Your task to perform on an android device: toggle show notifications on the lock screen Image 0: 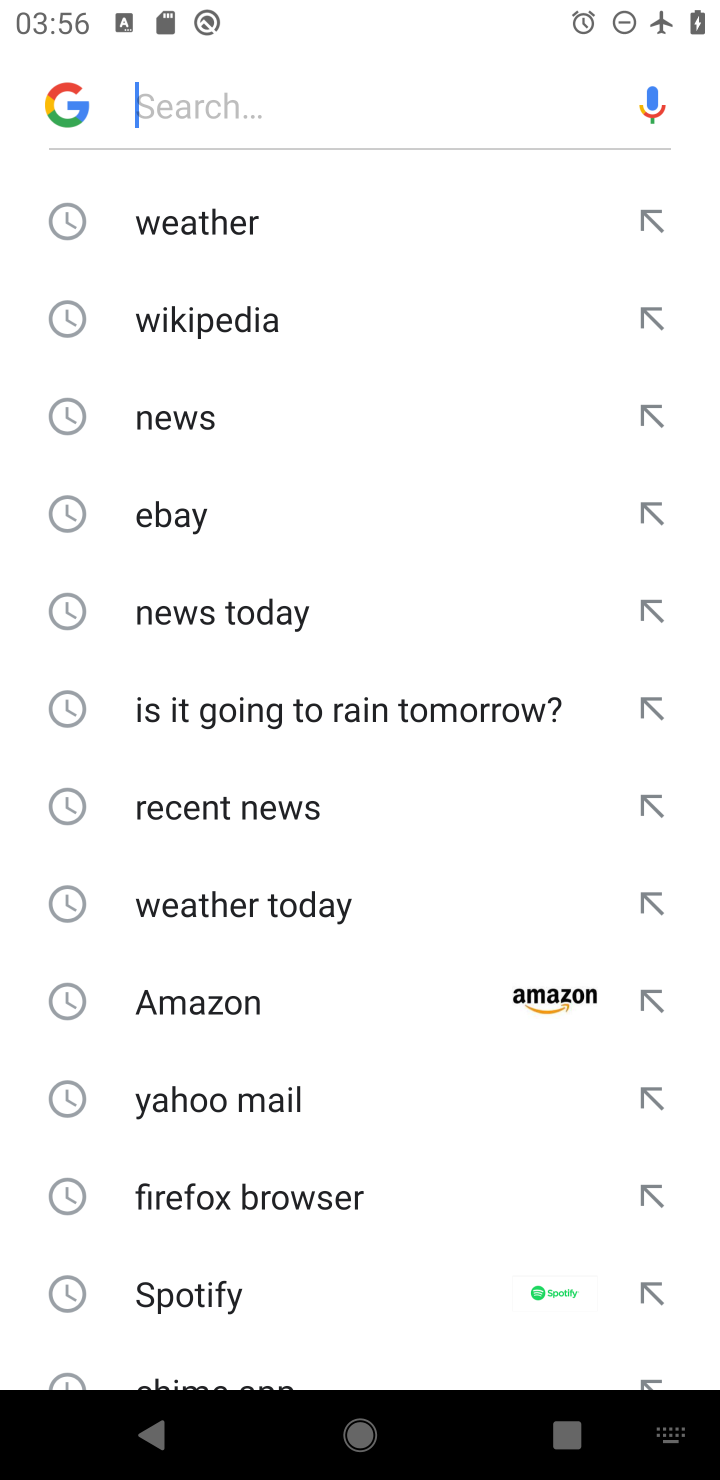
Step 0: press home button
Your task to perform on an android device: toggle show notifications on the lock screen Image 1: 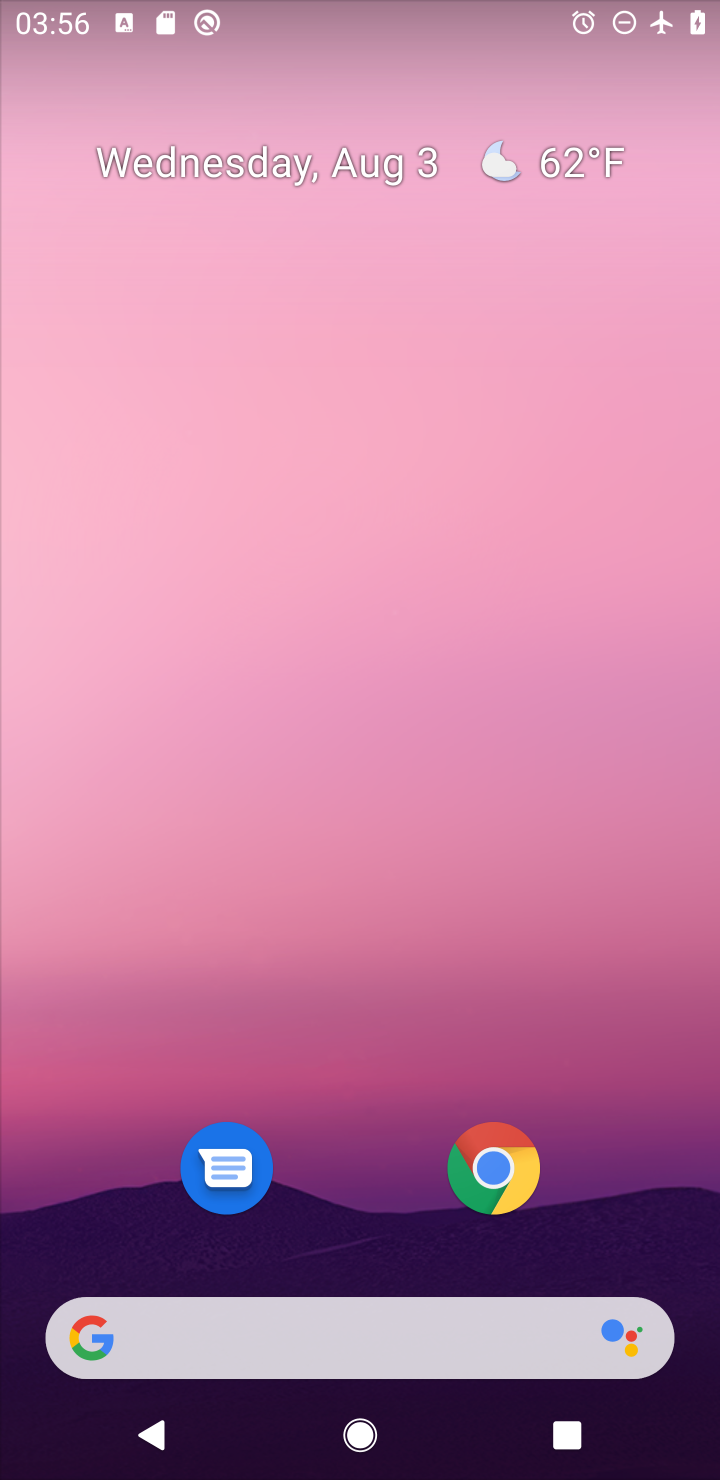
Step 1: drag from (685, 1149) to (584, 172)
Your task to perform on an android device: toggle show notifications on the lock screen Image 2: 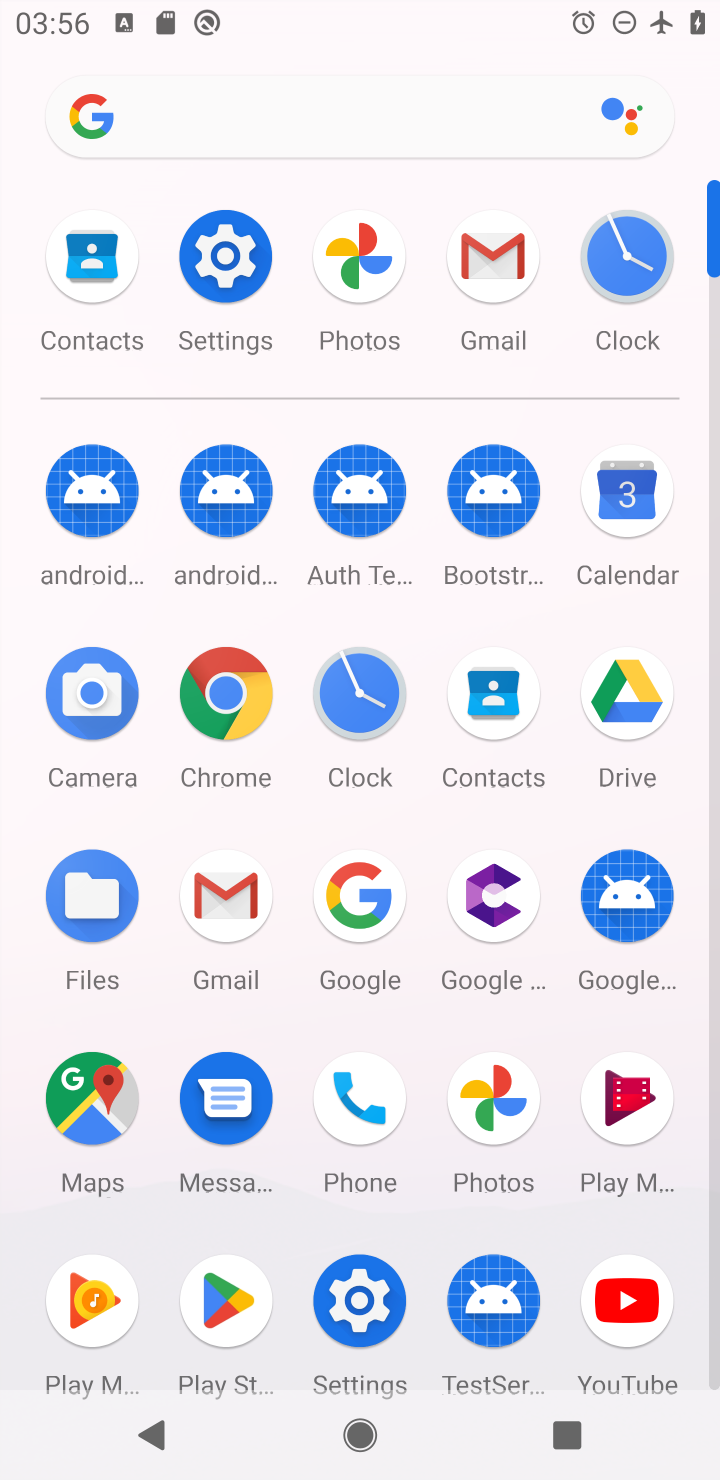
Step 2: click (359, 1302)
Your task to perform on an android device: toggle show notifications on the lock screen Image 3: 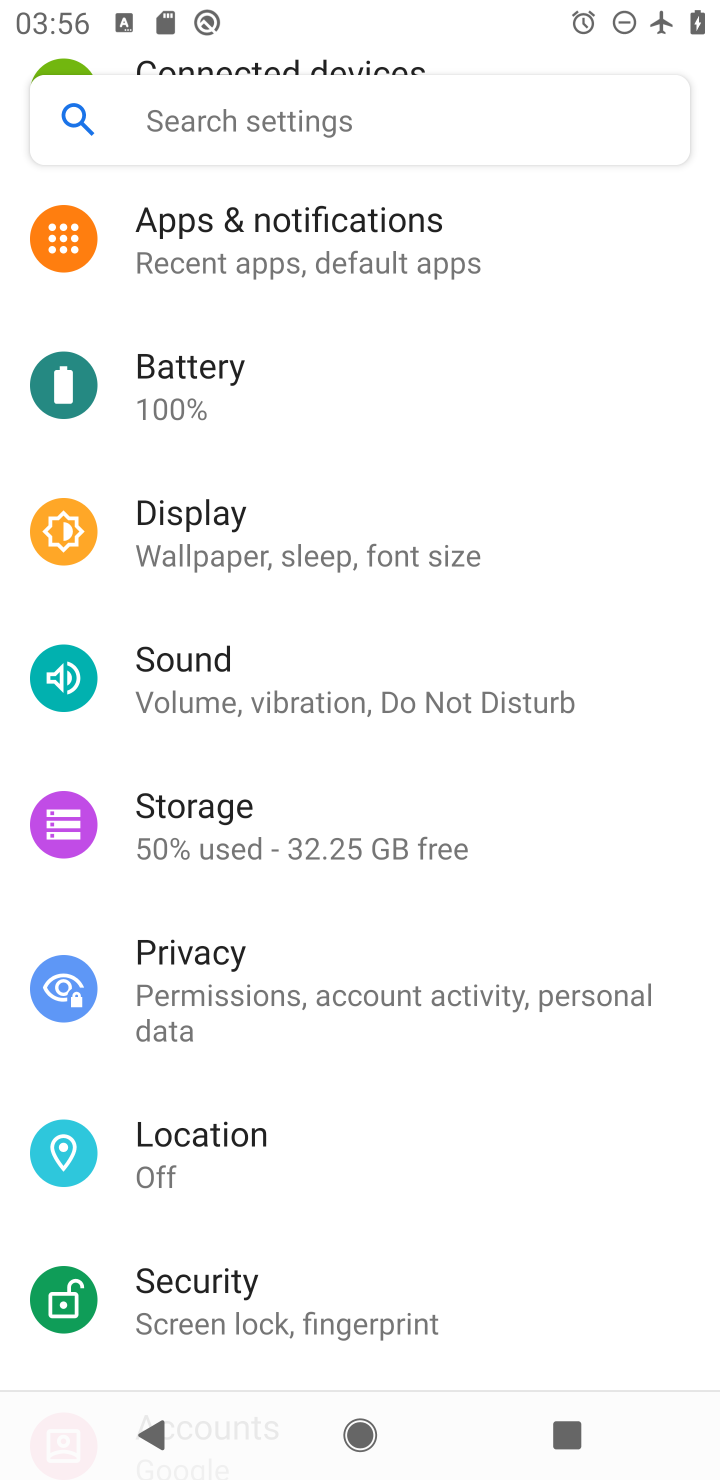
Step 3: drag from (543, 494) to (543, 920)
Your task to perform on an android device: toggle show notifications on the lock screen Image 4: 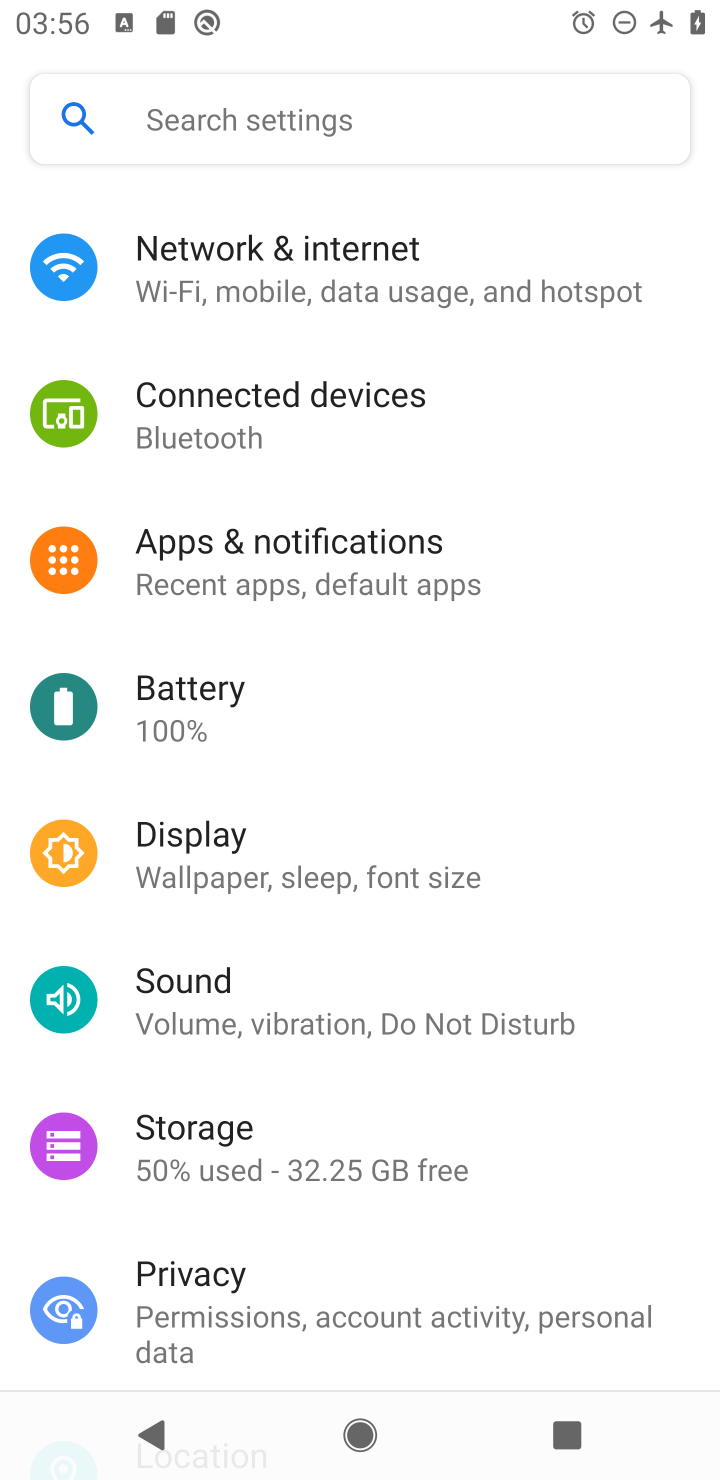
Step 4: click (238, 560)
Your task to perform on an android device: toggle show notifications on the lock screen Image 5: 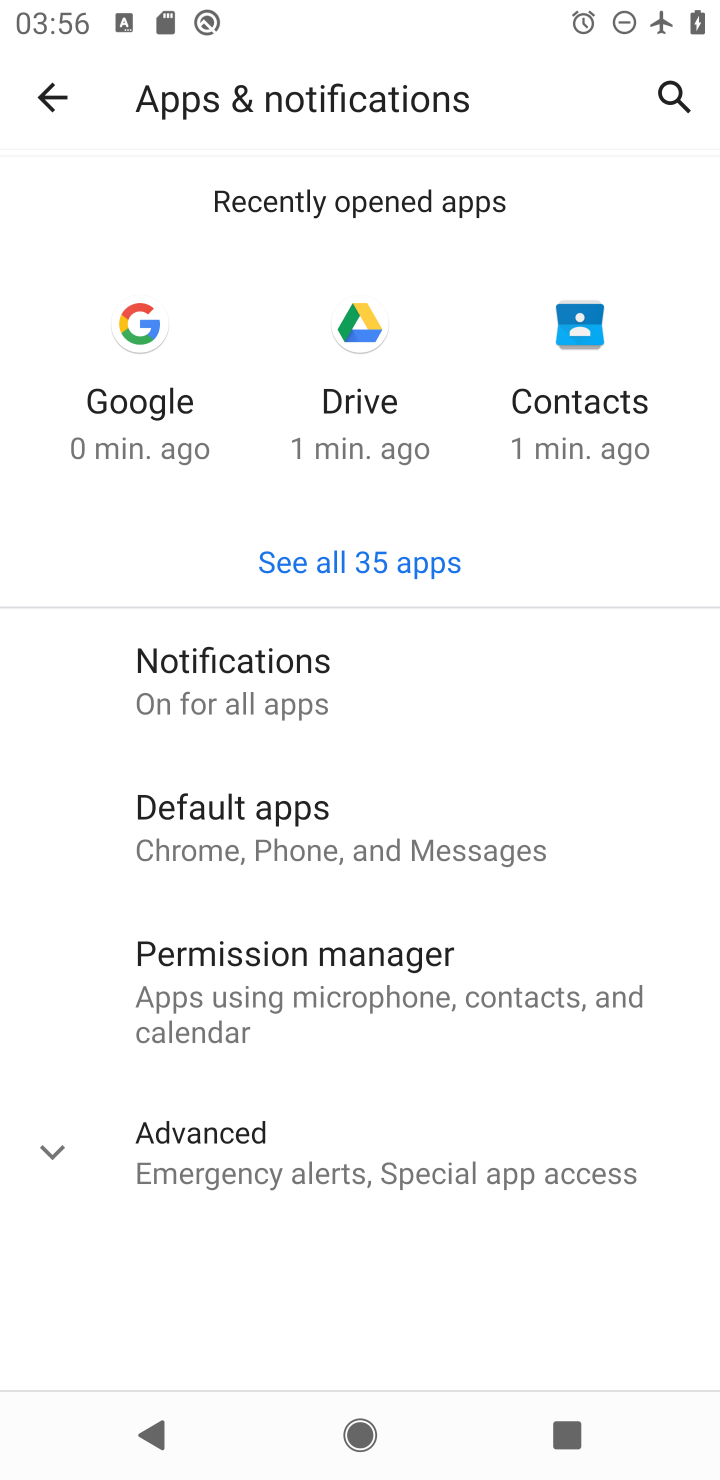
Step 5: click (224, 681)
Your task to perform on an android device: toggle show notifications on the lock screen Image 6: 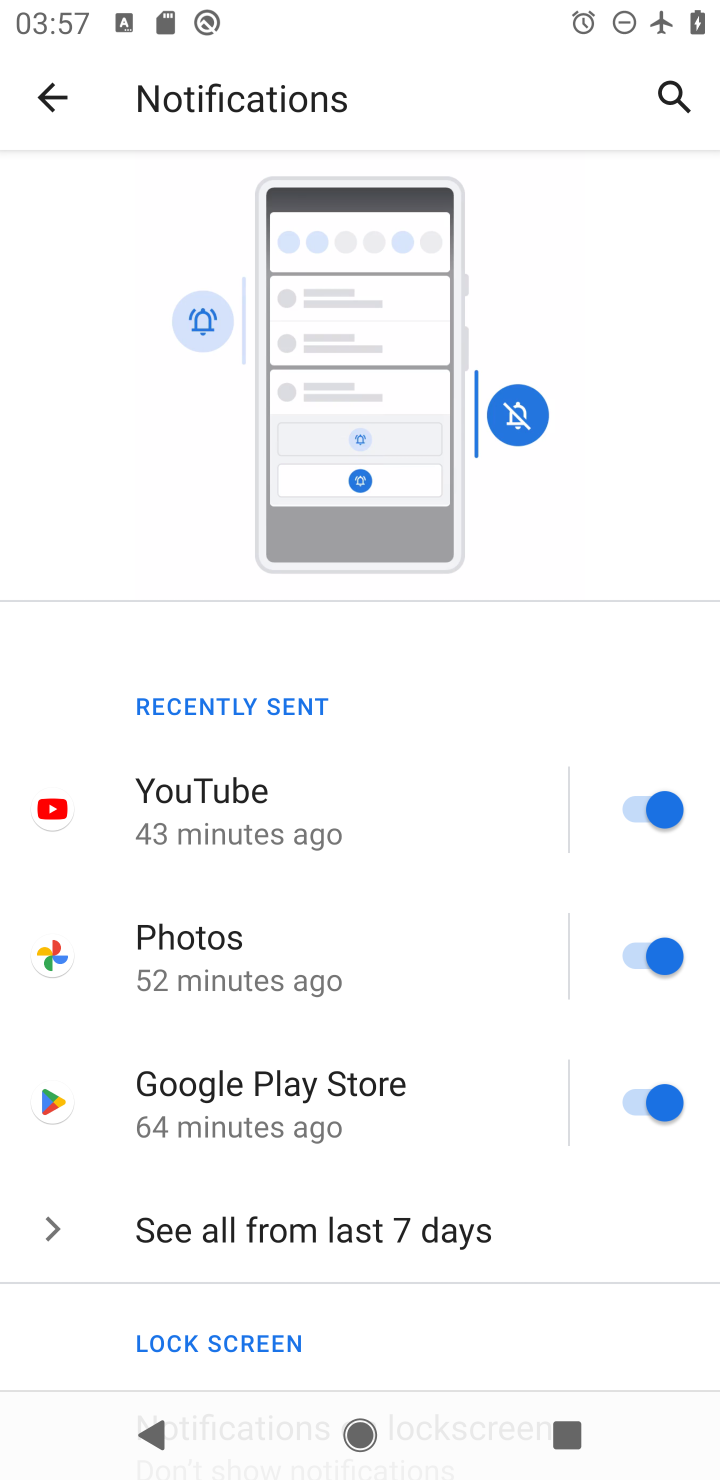
Step 6: drag from (518, 1316) to (555, 452)
Your task to perform on an android device: toggle show notifications on the lock screen Image 7: 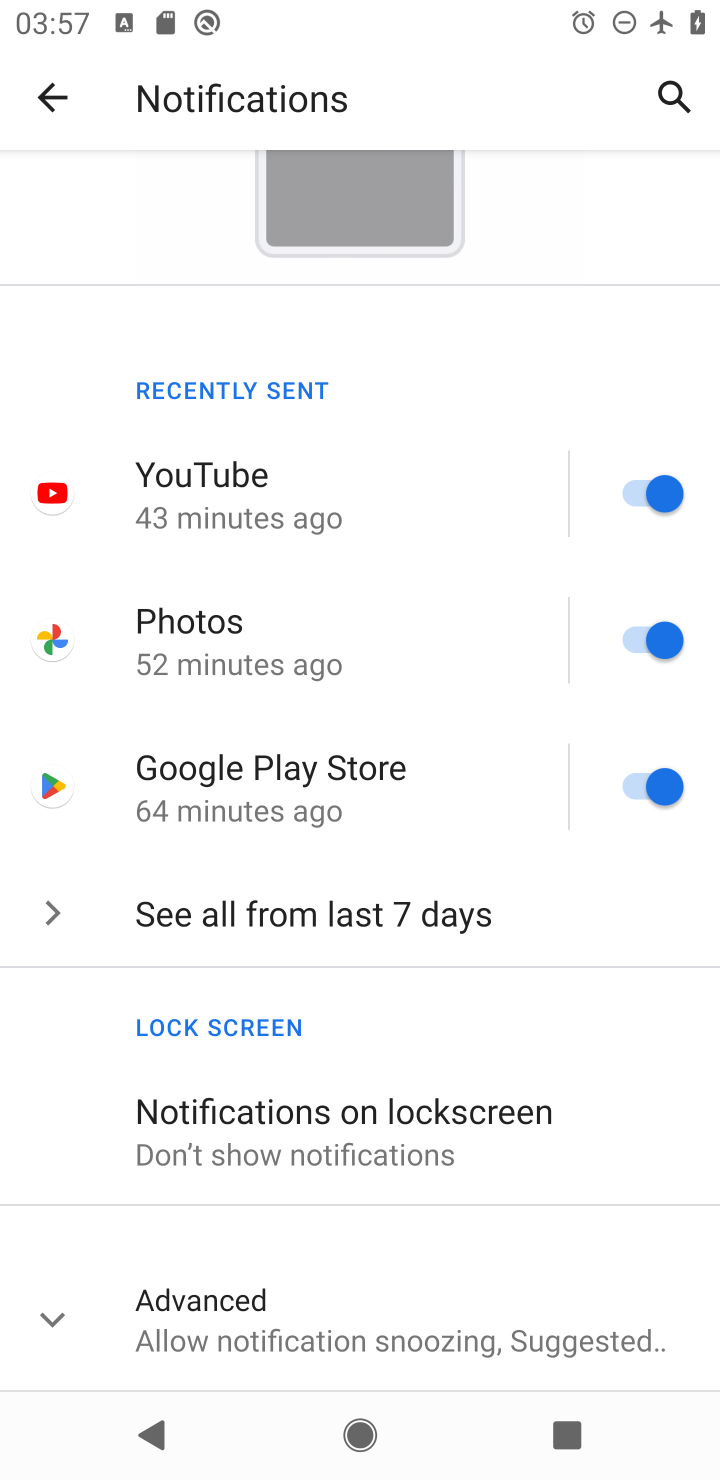
Step 7: click (320, 1135)
Your task to perform on an android device: toggle show notifications on the lock screen Image 8: 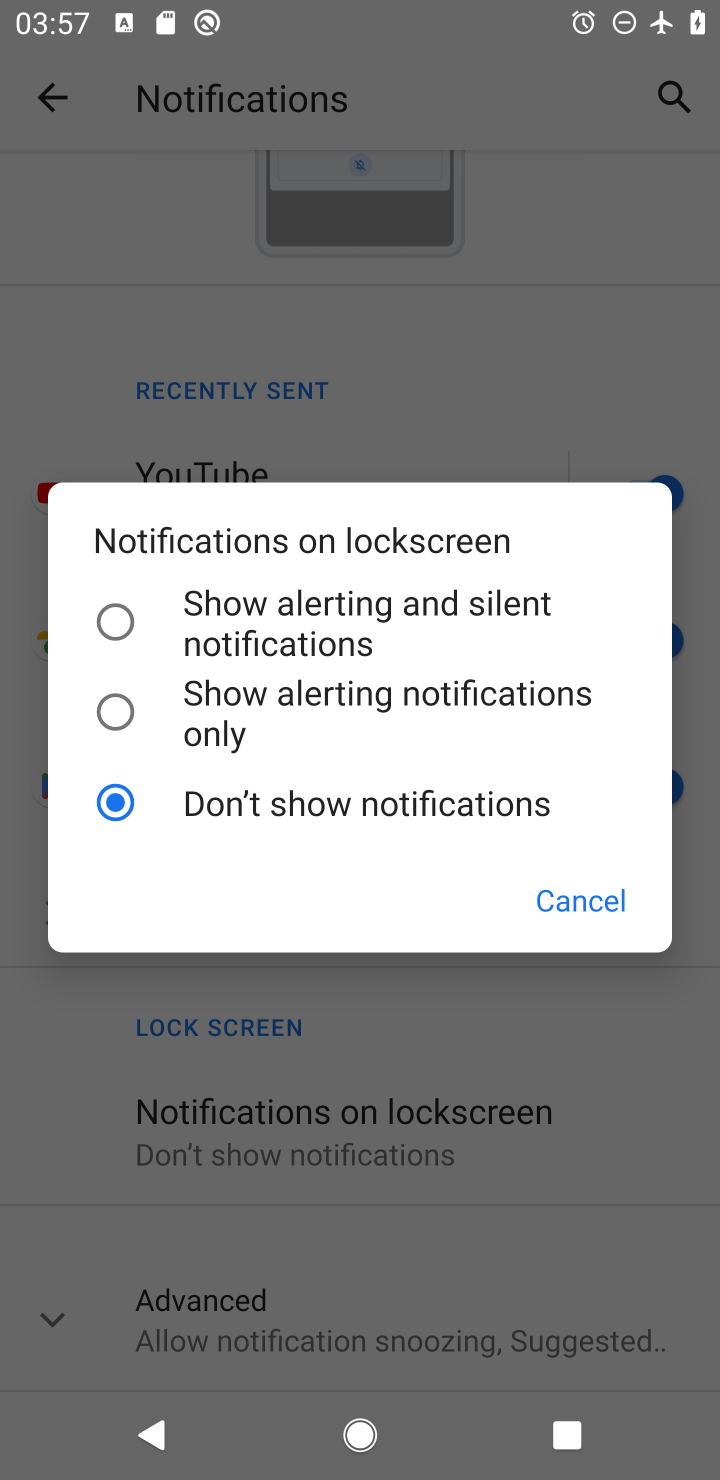
Step 8: click (113, 618)
Your task to perform on an android device: toggle show notifications on the lock screen Image 9: 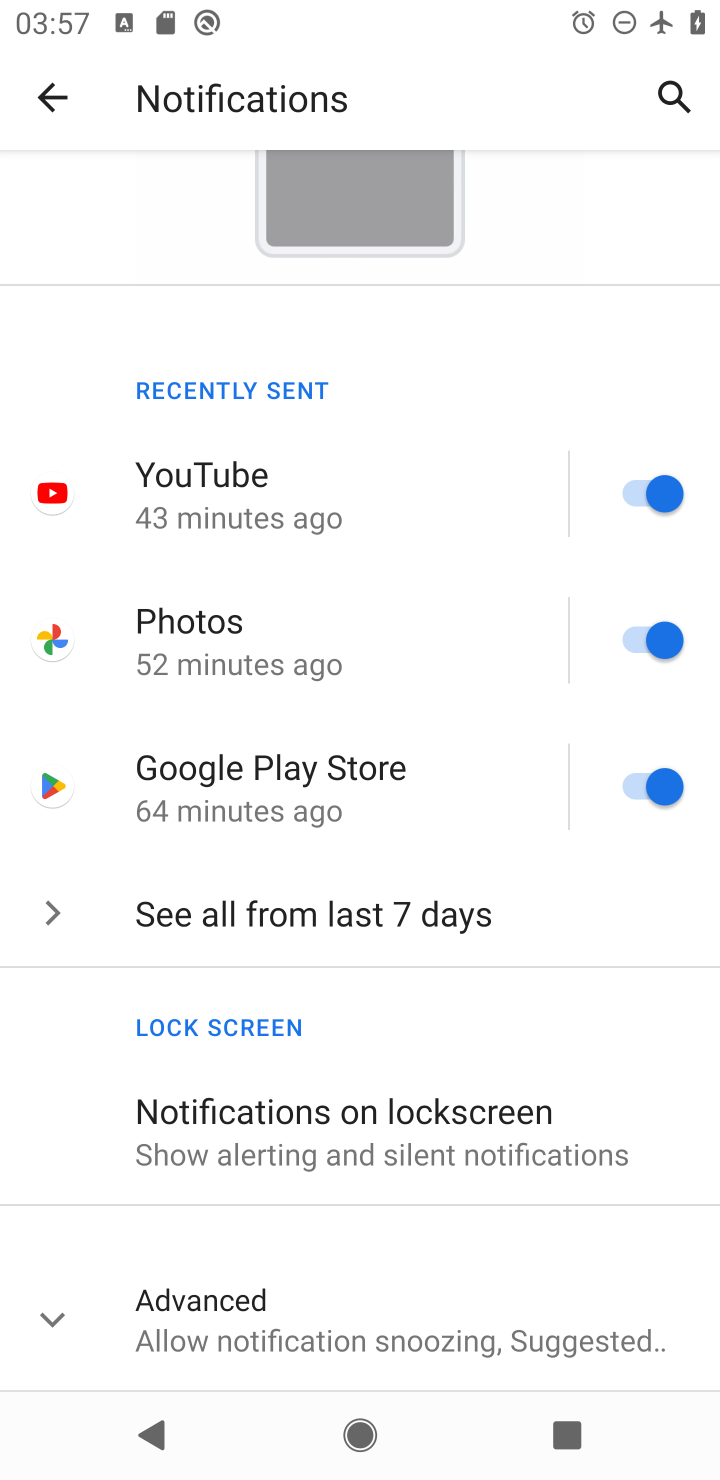
Step 9: task complete